Your task to perform on an android device: open device folders in google photos Image 0: 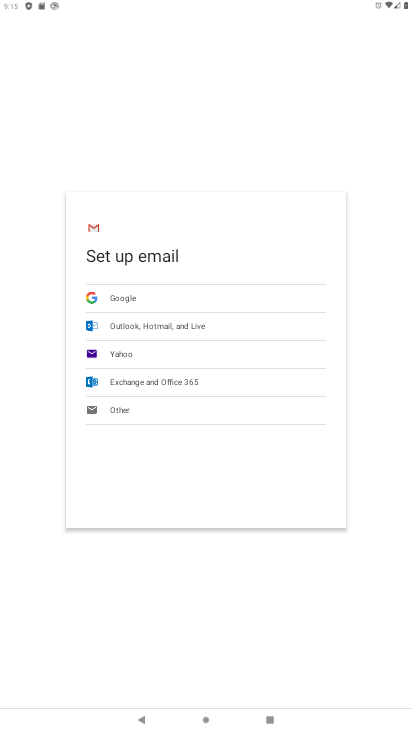
Step 0: press home button
Your task to perform on an android device: open device folders in google photos Image 1: 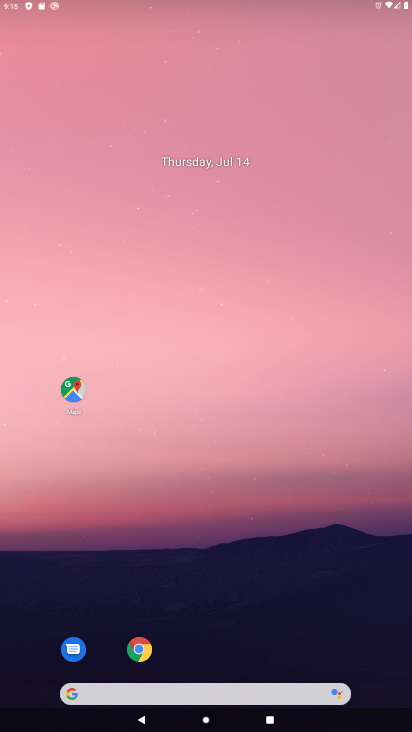
Step 1: drag from (215, 709) to (243, 131)
Your task to perform on an android device: open device folders in google photos Image 2: 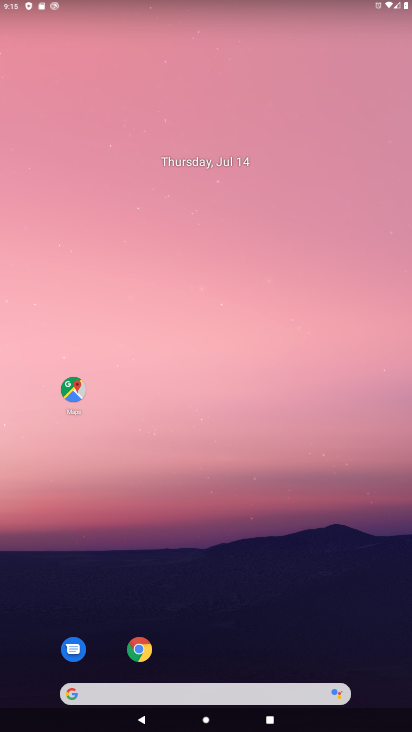
Step 2: drag from (226, 715) to (290, 16)
Your task to perform on an android device: open device folders in google photos Image 3: 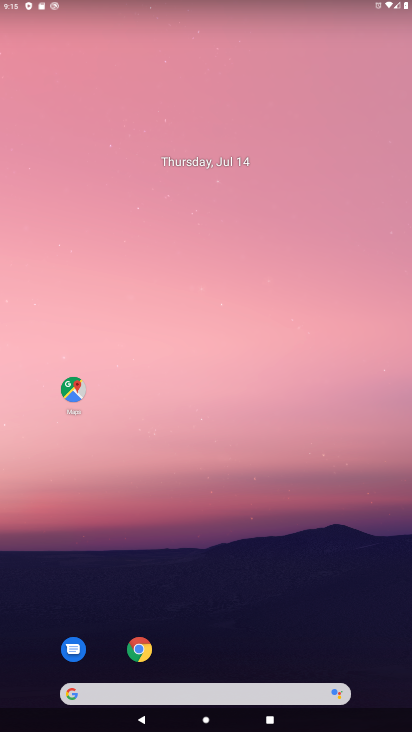
Step 3: drag from (211, 722) to (325, 17)
Your task to perform on an android device: open device folders in google photos Image 4: 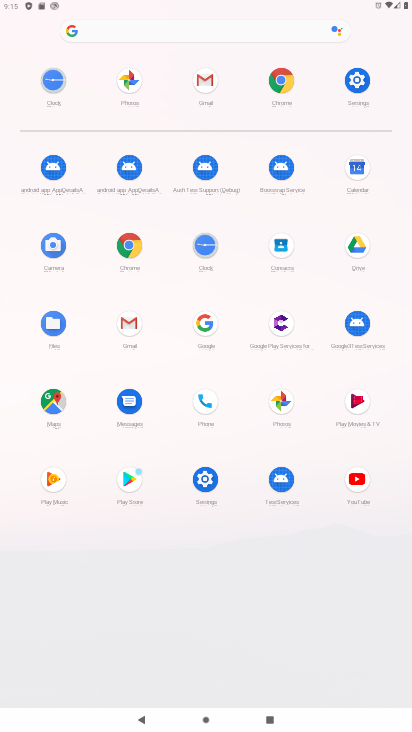
Step 4: click (120, 91)
Your task to perform on an android device: open device folders in google photos Image 5: 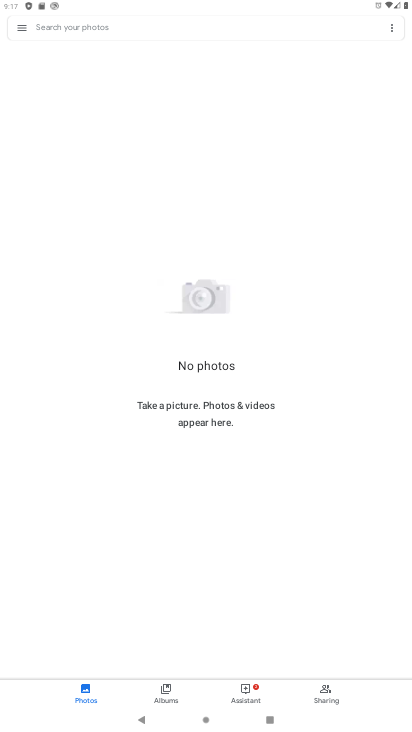
Step 5: click (24, 30)
Your task to perform on an android device: open device folders in google photos Image 6: 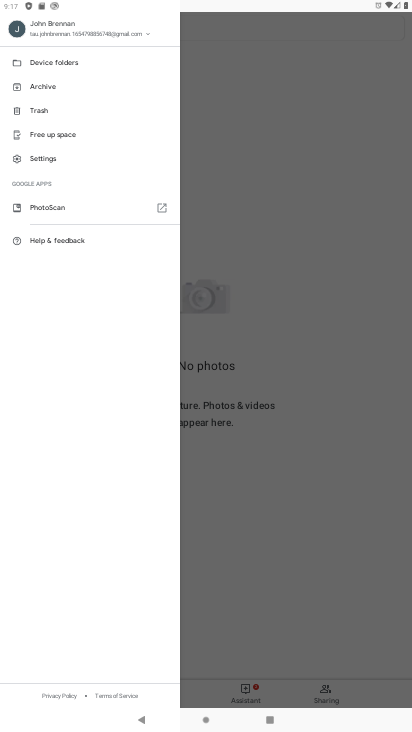
Step 6: click (45, 66)
Your task to perform on an android device: open device folders in google photos Image 7: 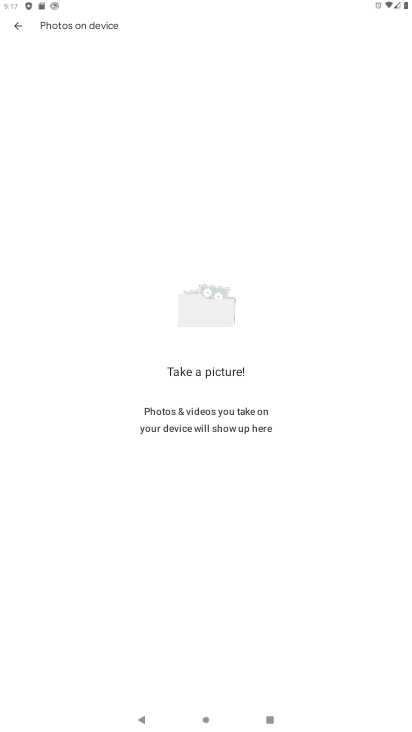
Step 7: task complete